Your task to perform on an android device: Check the weather Image 0: 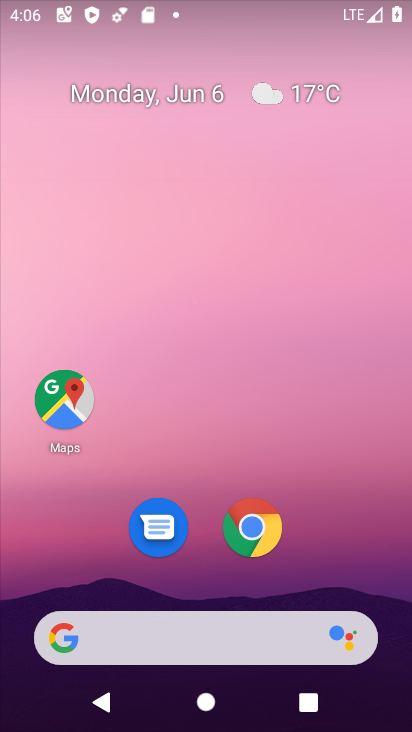
Step 0: click (157, 648)
Your task to perform on an android device: Check the weather Image 1: 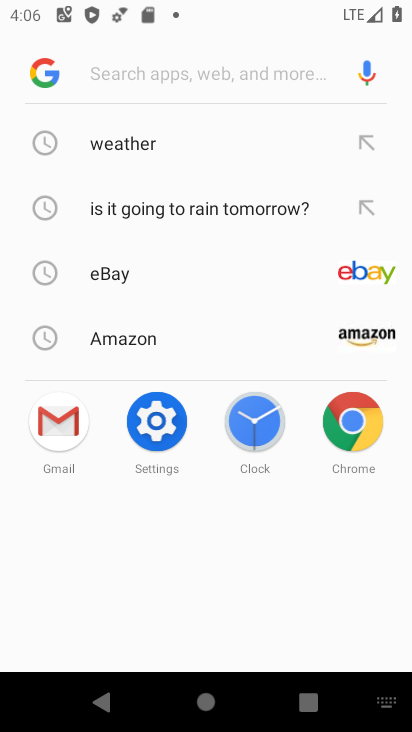
Step 1: click (166, 132)
Your task to perform on an android device: Check the weather Image 2: 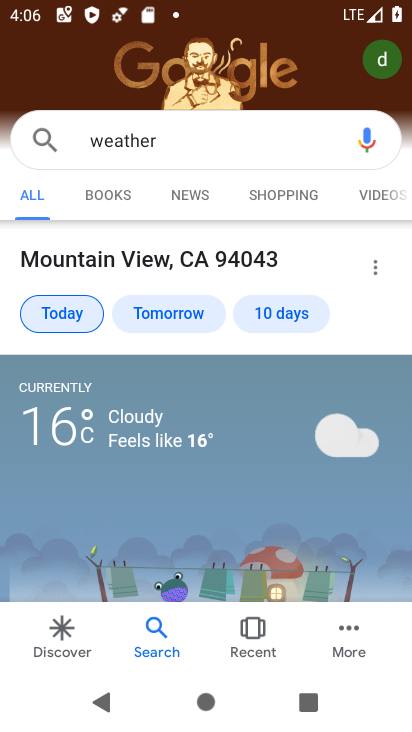
Step 2: task complete